Your task to perform on an android device: Open Google Image 0: 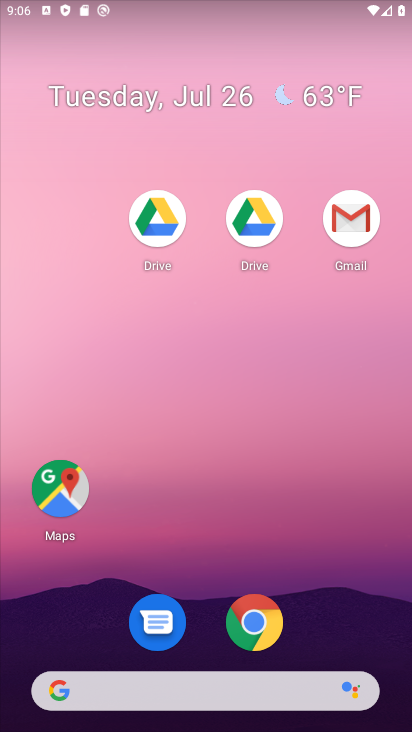
Step 0: click (285, 684)
Your task to perform on an android device: Open Google Image 1: 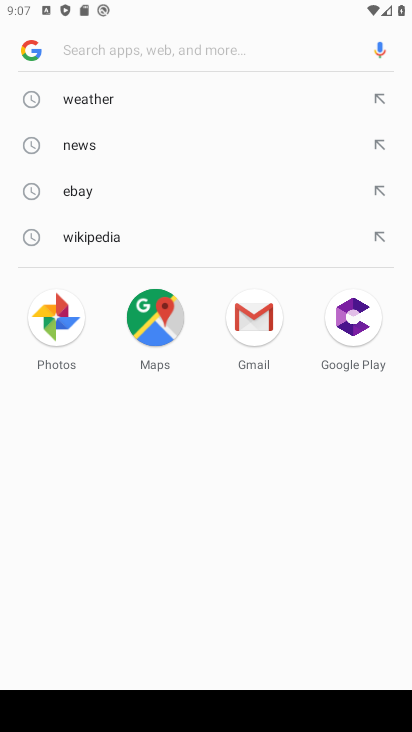
Step 1: type "google.com"
Your task to perform on an android device: Open Google Image 2: 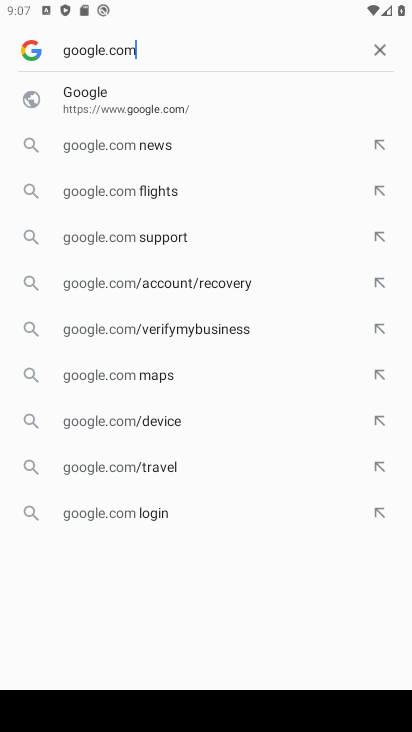
Step 2: click (206, 122)
Your task to perform on an android device: Open Google Image 3: 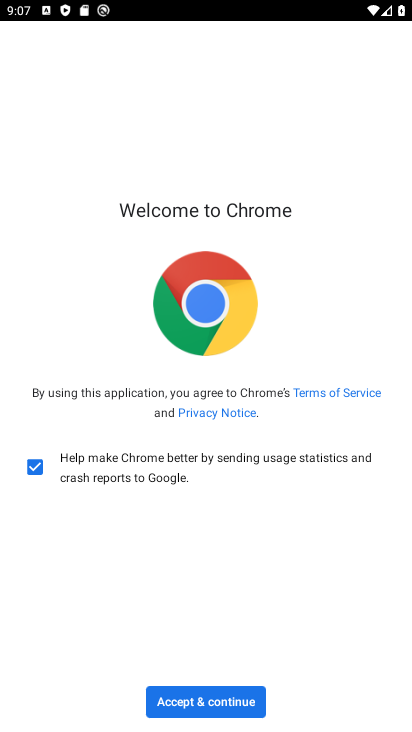
Step 3: task complete